Your task to perform on an android device: Go to Reddit.com Image 0: 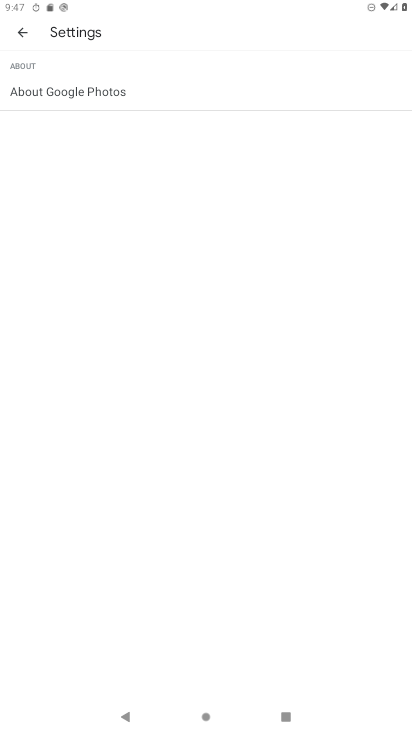
Step 0: press home button
Your task to perform on an android device: Go to Reddit.com Image 1: 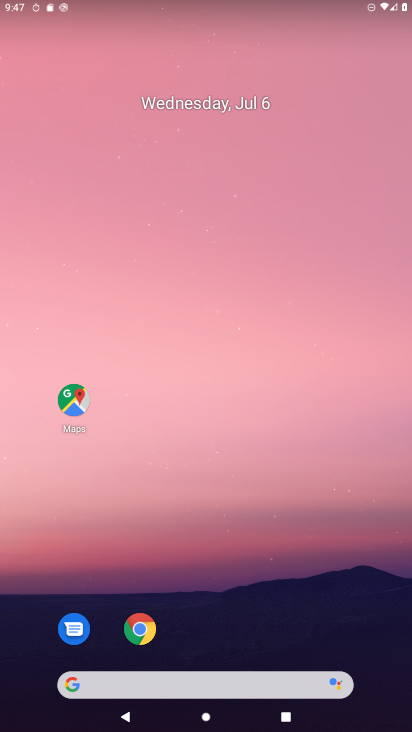
Step 1: click (138, 631)
Your task to perform on an android device: Go to Reddit.com Image 2: 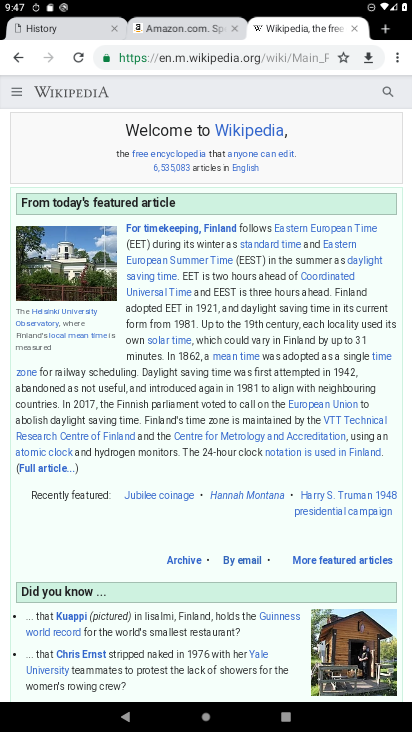
Step 2: click (398, 61)
Your task to perform on an android device: Go to Reddit.com Image 3: 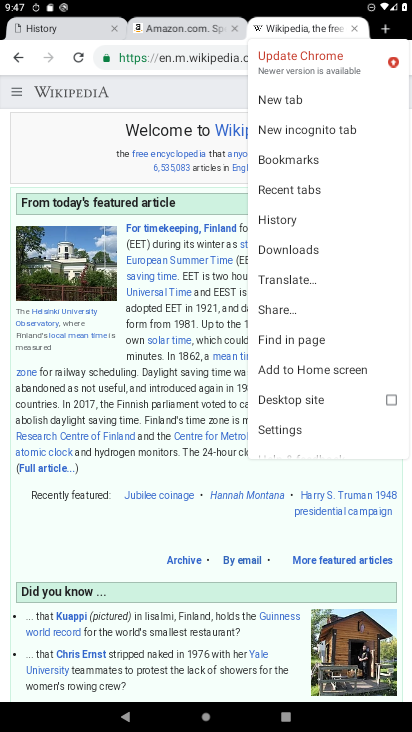
Step 3: click (288, 98)
Your task to perform on an android device: Go to Reddit.com Image 4: 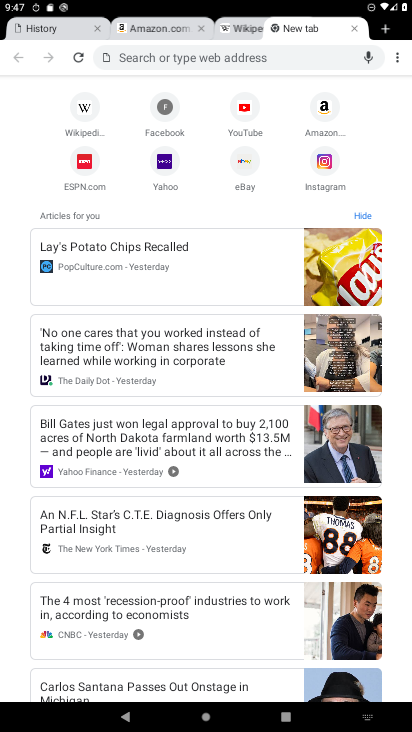
Step 4: type "Reddit.com"
Your task to perform on an android device: Go to Reddit.com Image 5: 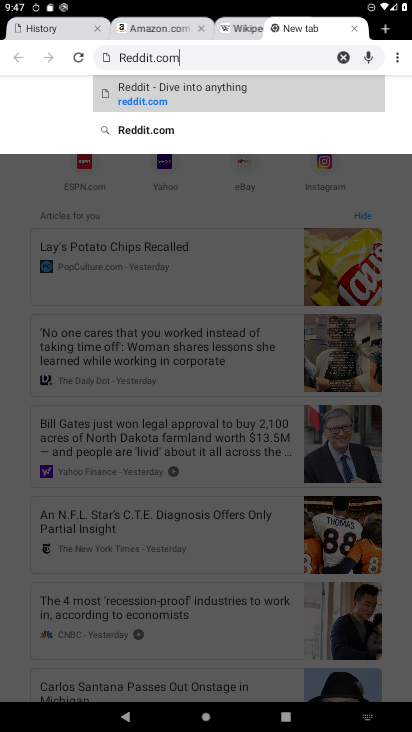
Step 5: type ""
Your task to perform on an android device: Go to Reddit.com Image 6: 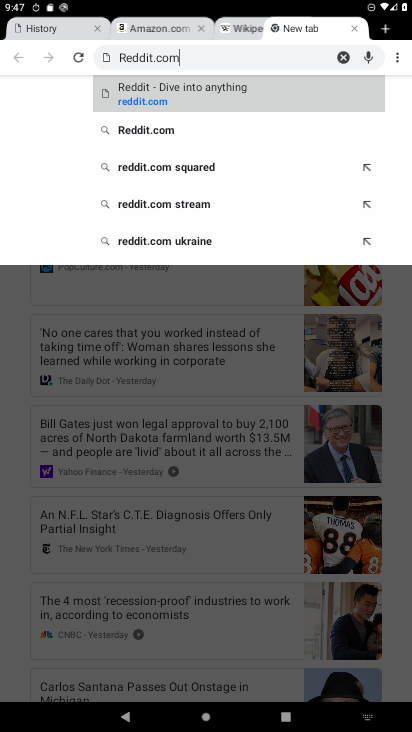
Step 6: click (179, 94)
Your task to perform on an android device: Go to Reddit.com Image 7: 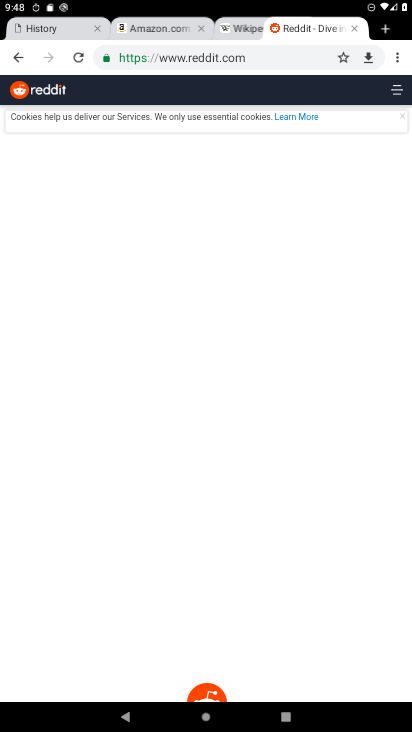
Step 7: task complete